Your task to perform on an android device: turn off location Image 0: 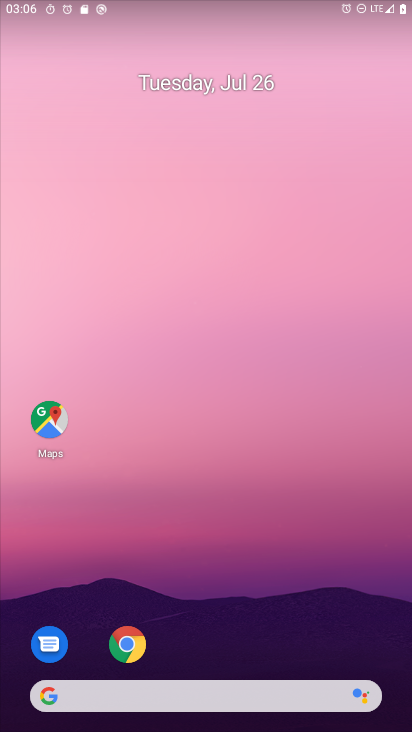
Step 0: drag from (272, 598) to (228, 67)
Your task to perform on an android device: turn off location Image 1: 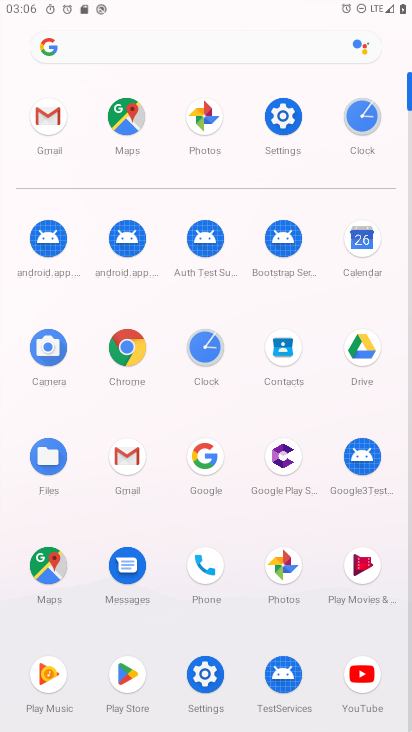
Step 1: click (283, 124)
Your task to perform on an android device: turn off location Image 2: 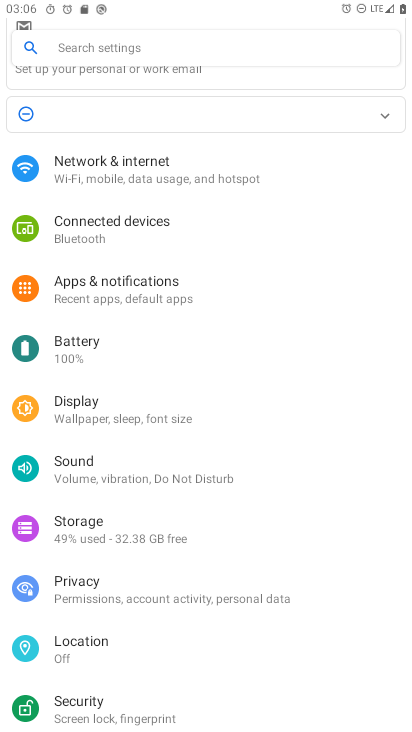
Step 2: click (104, 647)
Your task to perform on an android device: turn off location Image 3: 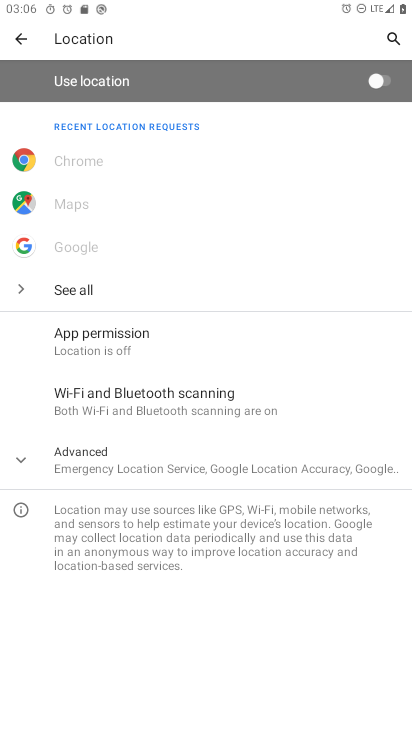
Step 3: task complete